Your task to perform on an android device: Go to Yahoo.com Image 0: 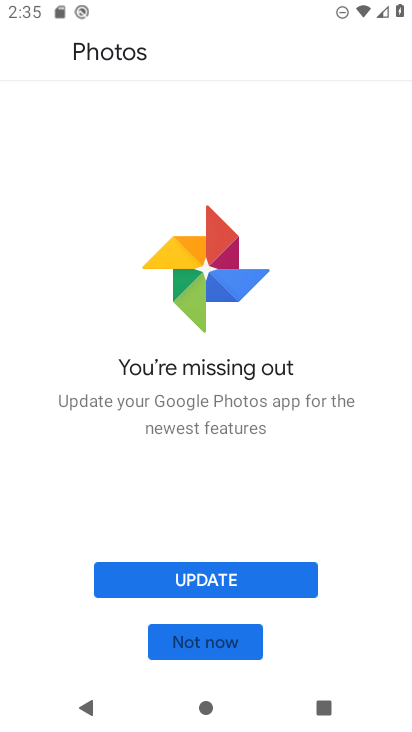
Step 0: press home button
Your task to perform on an android device: Go to Yahoo.com Image 1: 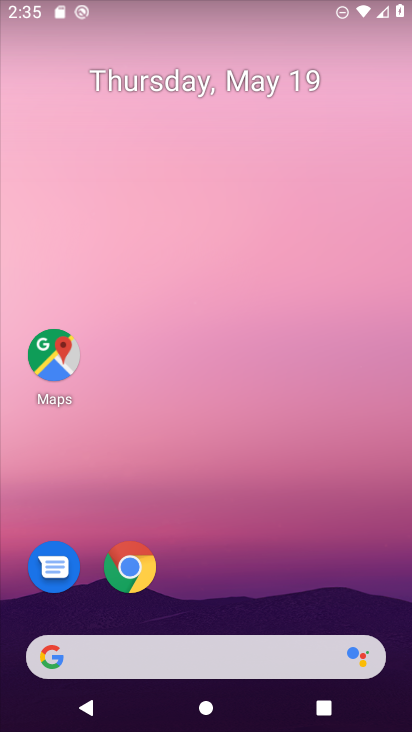
Step 1: click (155, 654)
Your task to perform on an android device: Go to Yahoo.com Image 2: 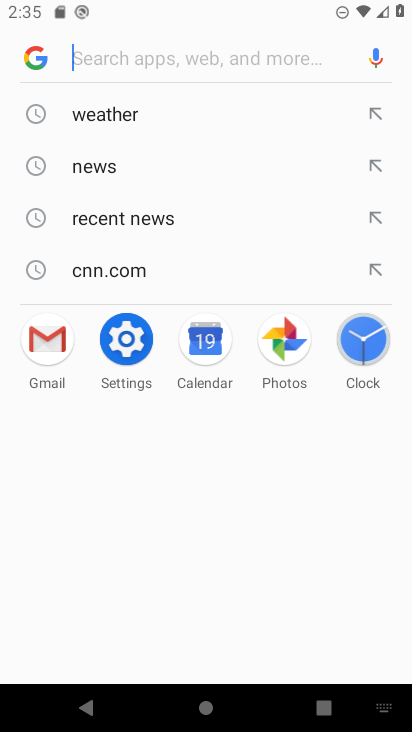
Step 2: type "yahoo.com"
Your task to perform on an android device: Go to Yahoo.com Image 3: 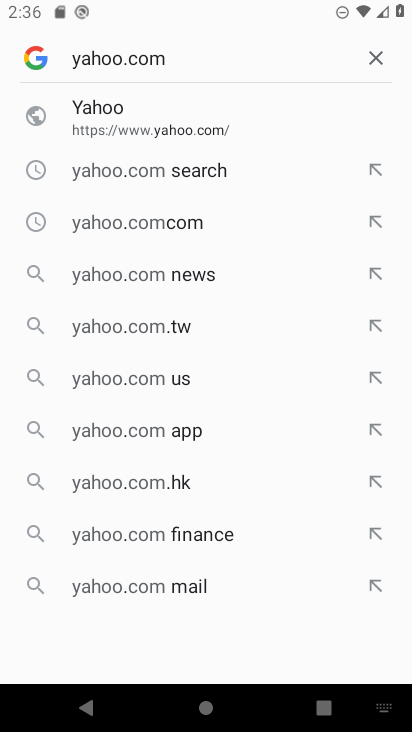
Step 3: click (120, 117)
Your task to perform on an android device: Go to Yahoo.com Image 4: 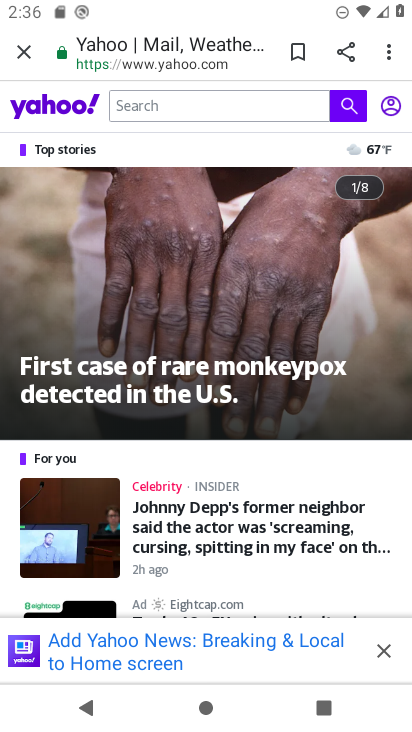
Step 4: task complete